Your task to perform on an android device: Go to CNN.com Image 0: 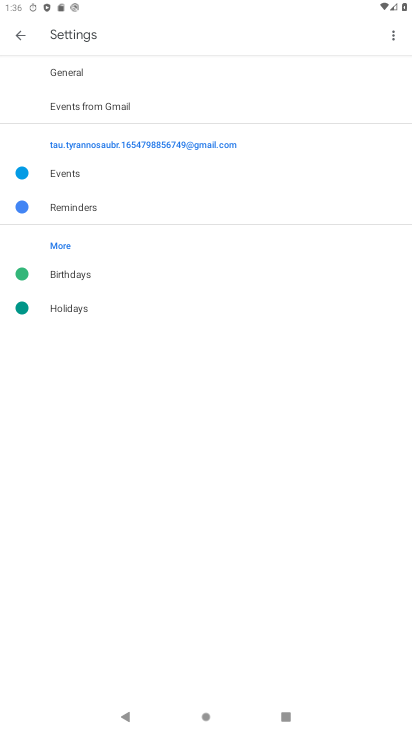
Step 0: press home button
Your task to perform on an android device: Go to CNN.com Image 1: 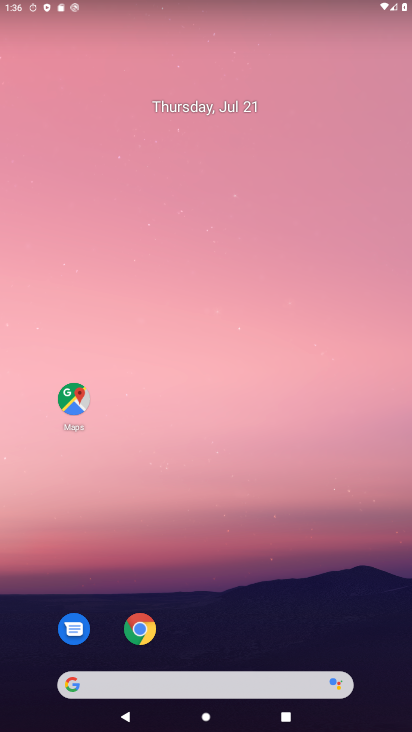
Step 1: click (137, 679)
Your task to perform on an android device: Go to CNN.com Image 2: 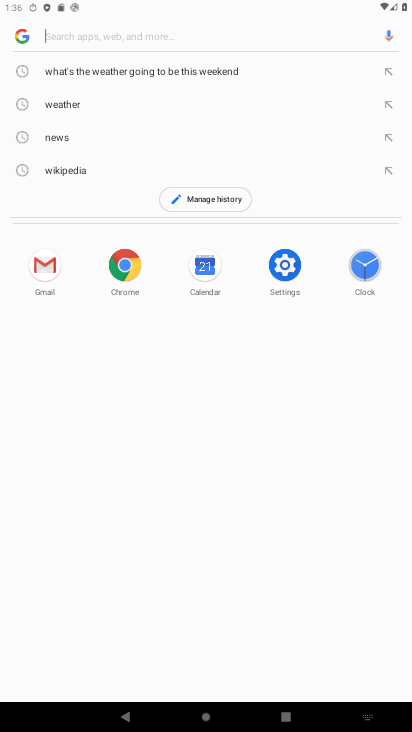
Step 2: type "CNN.com"
Your task to perform on an android device: Go to CNN.com Image 3: 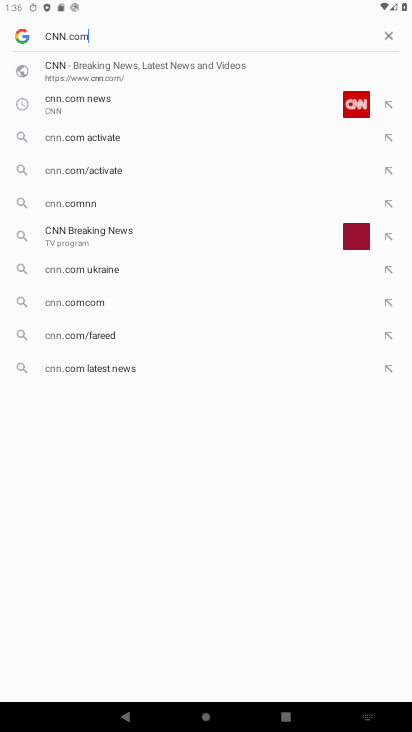
Step 3: type ""
Your task to perform on an android device: Go to CNN.com Image 4: 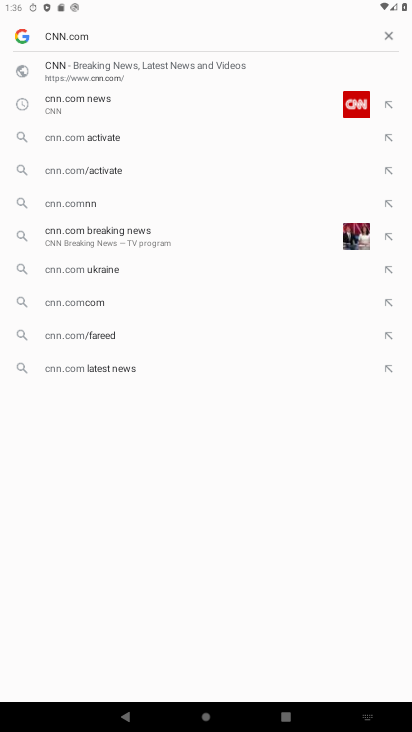
Step 4: click (54, 71)
Your task to perform on an android device: Go to CNN.com Image 5: 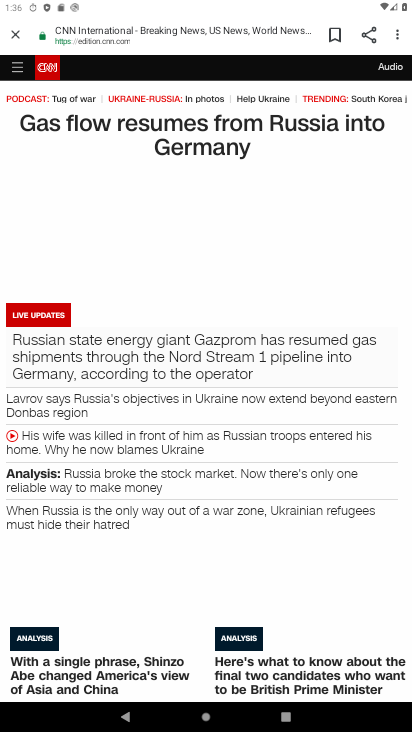
Step 5: task complete